Your task to perform on an android device: Add "lenovo thinkpad" to the cart on target, then select checkout. Image 0: 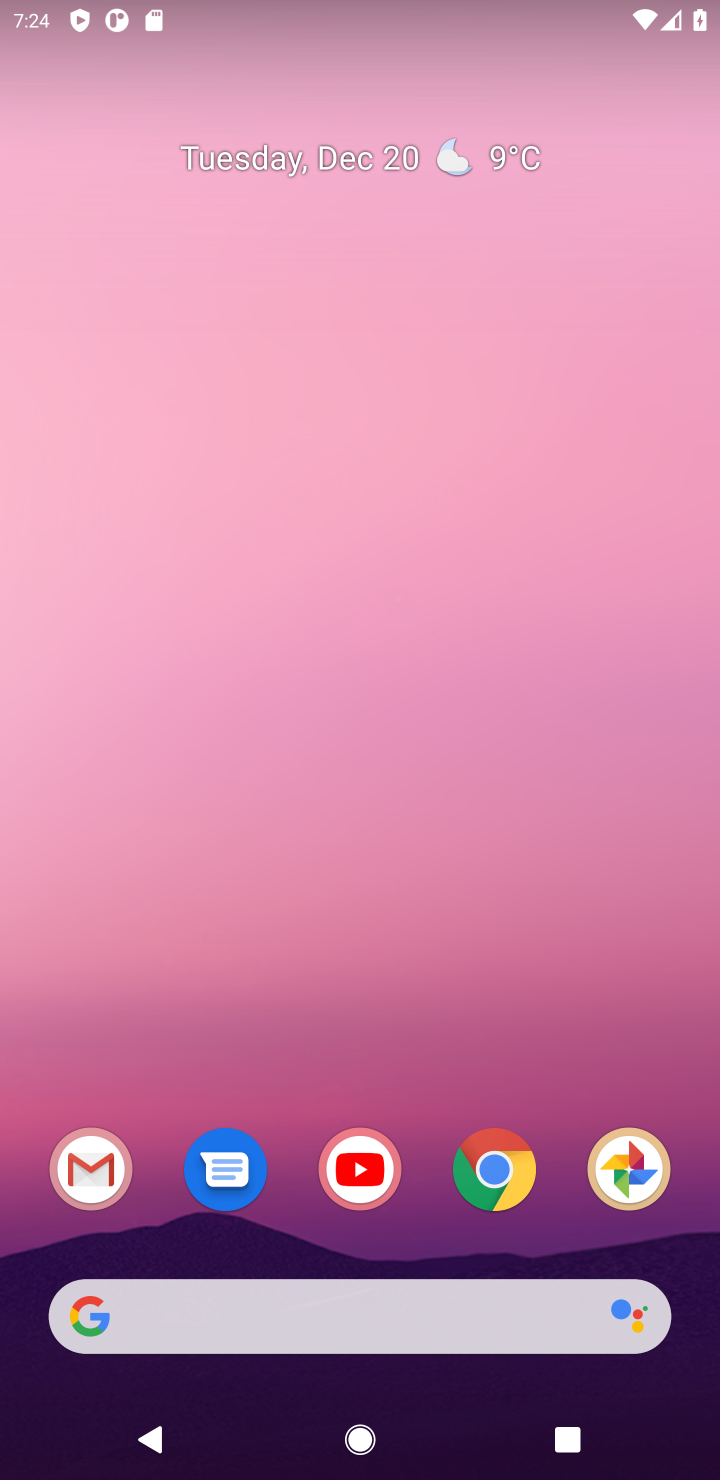
Step 0: click (514, 1173)
Your task to perform on an android device: Add "lenovo thinkpad" to the cart on target, then select checkout. Image 1: 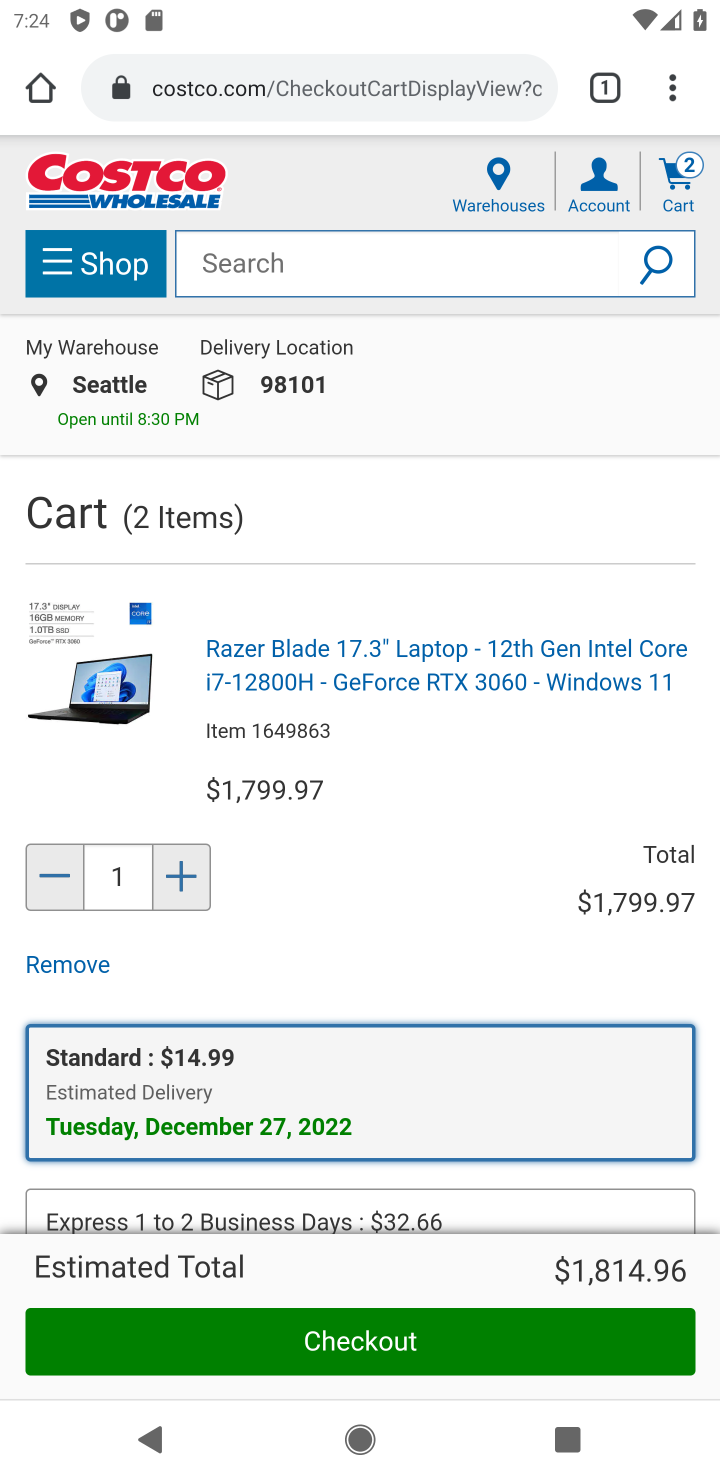
Step 1: click (315, 98)
Your task to perform on an android device: Add "lenovo thinkpad" to the cart on target, then select checkout. Image 2: 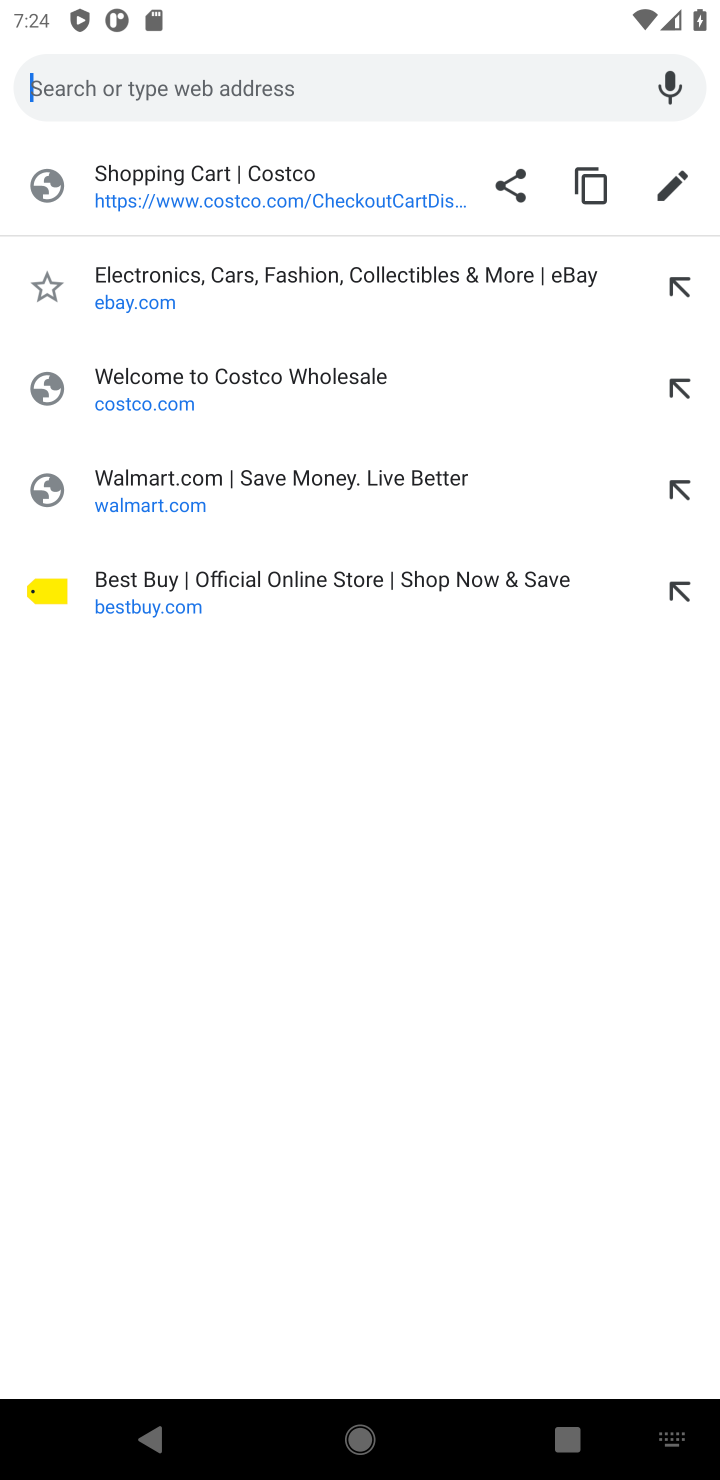
Step 2: type "target"
Your task to perform on an android device: Add "lenovo thinkpad" to the cart on target, then select checkout. Image 3: 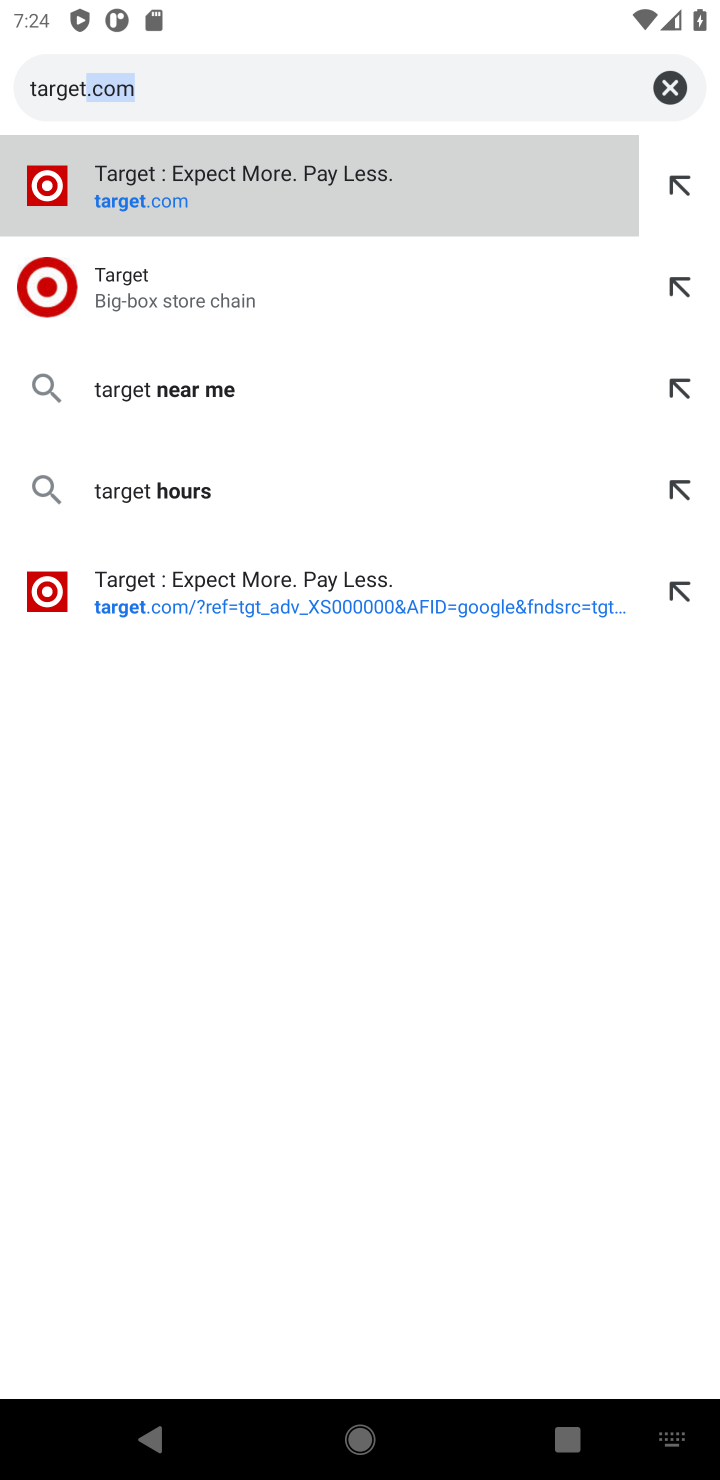
Step 3: click (237, 174)
Your task to perform on an android device: Add "lenovo thinkpad" to the cart on target, then select checkout. Image 4: 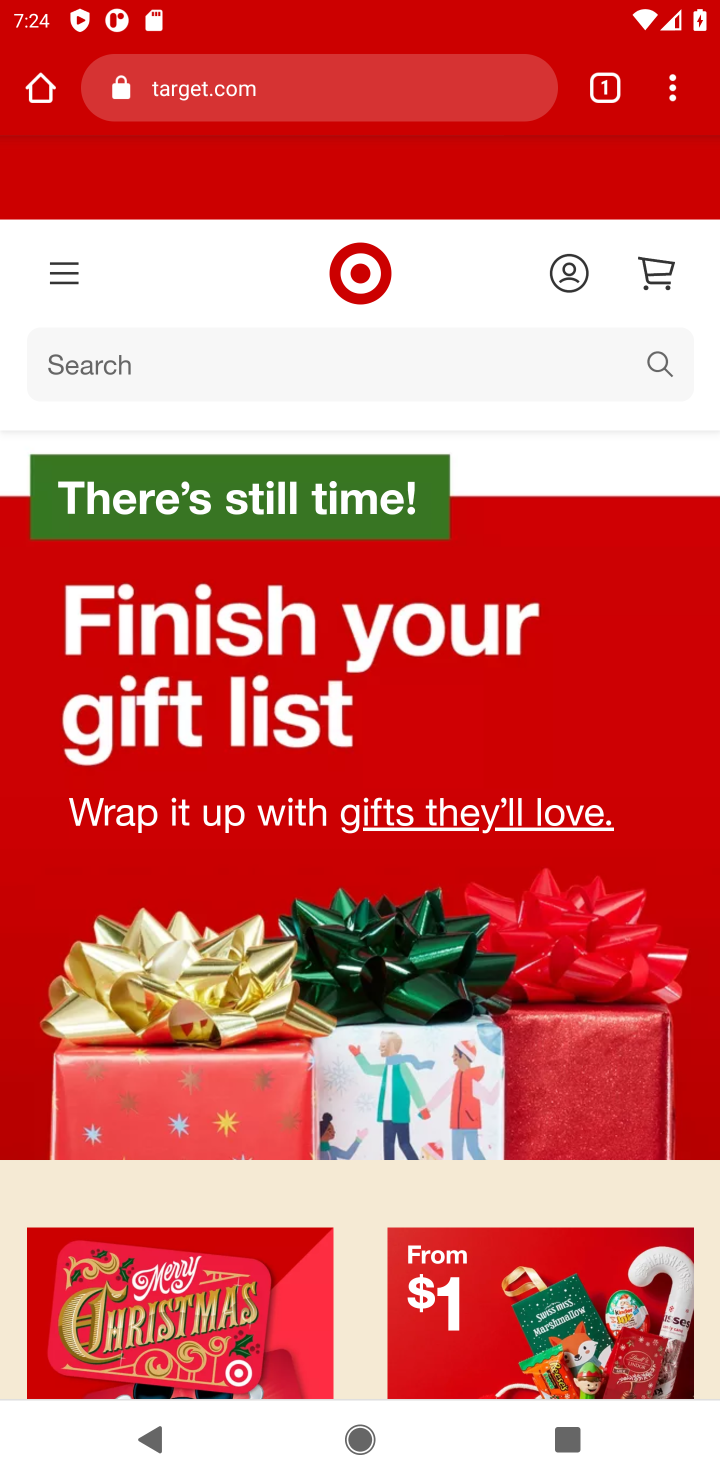
Step 4: click (305, 342)
Your task to perform on an android device: Add "lenovo thinkpad" to the cart on target, then select checkout. Image 5: 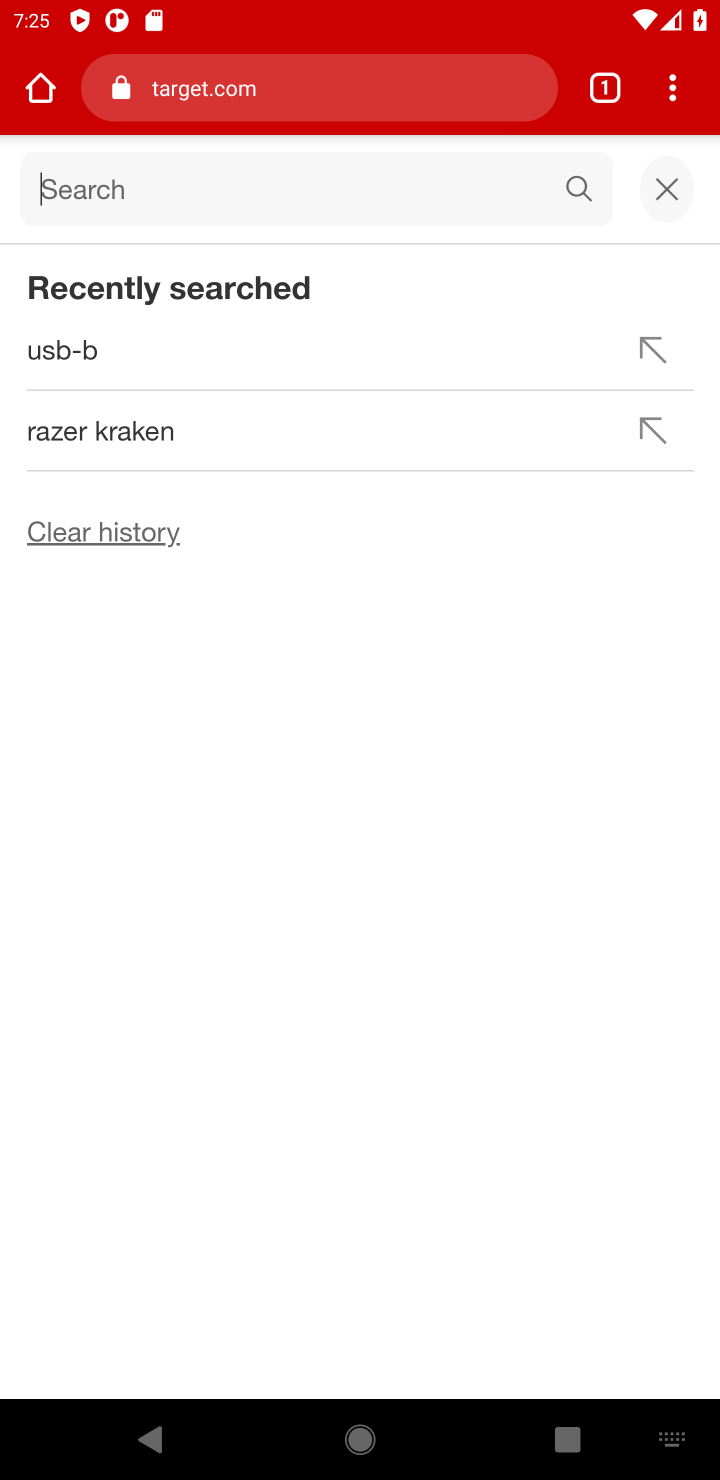
Step 5: type "lenovo thinkpad"
Your task to perform on an android device: Add "lenovo thinkpad" to the cart on target, then select checkout. Image 6: 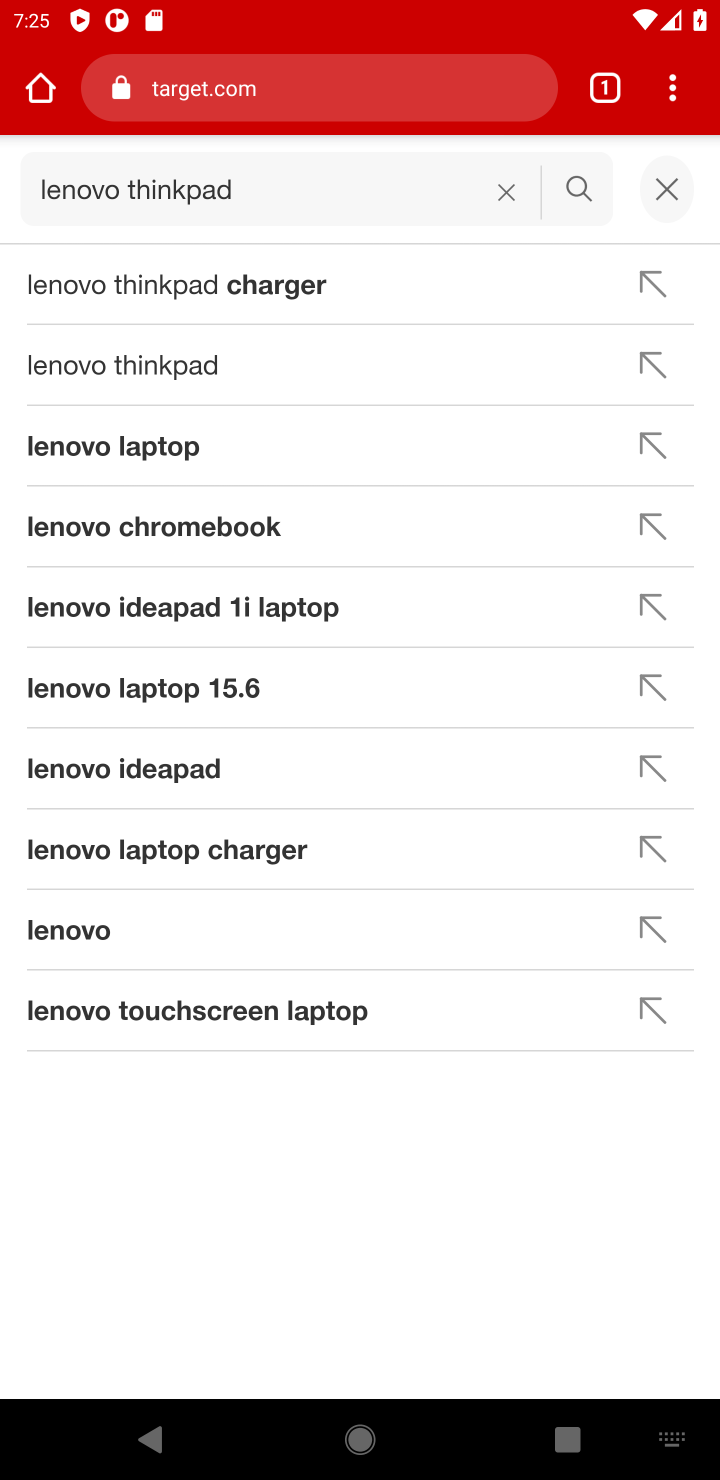
Step 6: click (183, 379)
Your task to perform on an android device: Add "lenovo thinkpad" to the cart on target, then select checkout. Image 7: 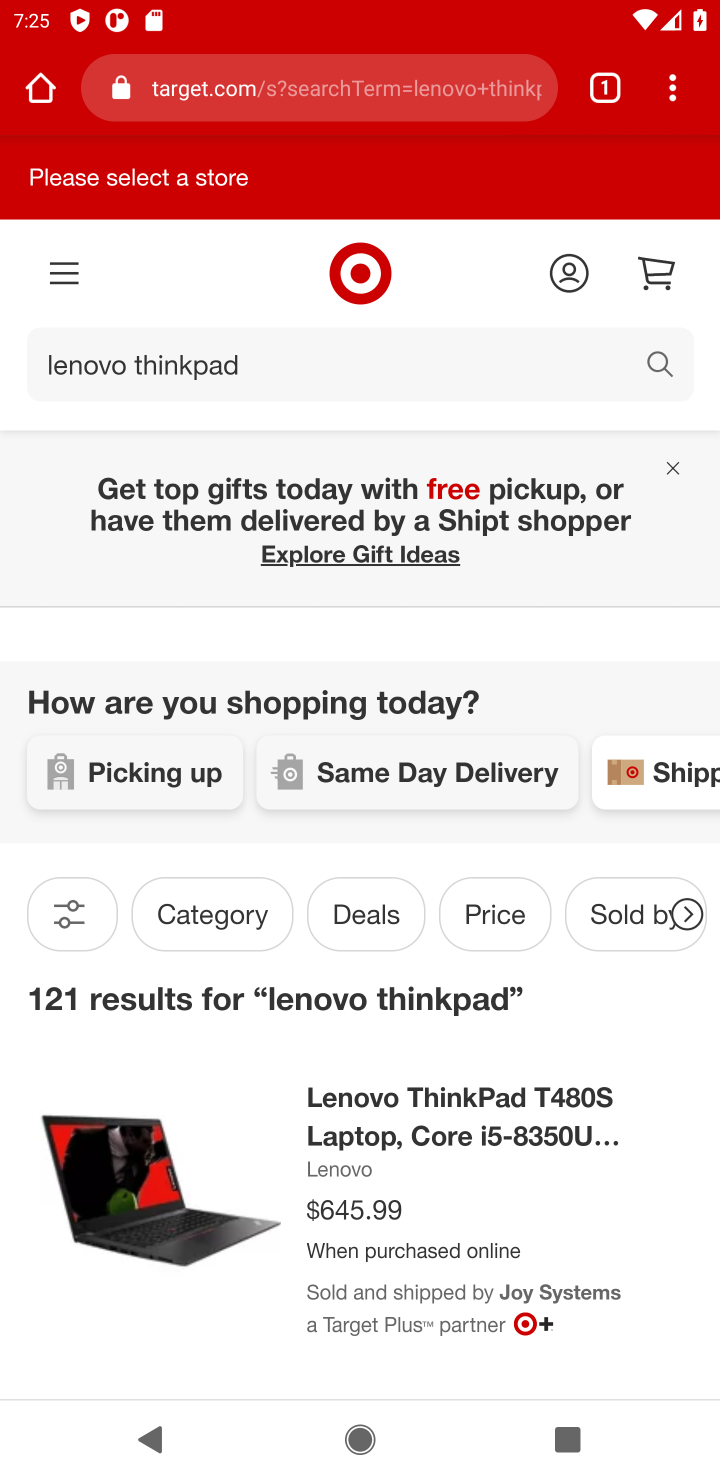
Step 7: click (495, 1190)
Your task to perform on an android device: Add "lenovo thinkpad" to the cart on target, then select checkout. Image 8: 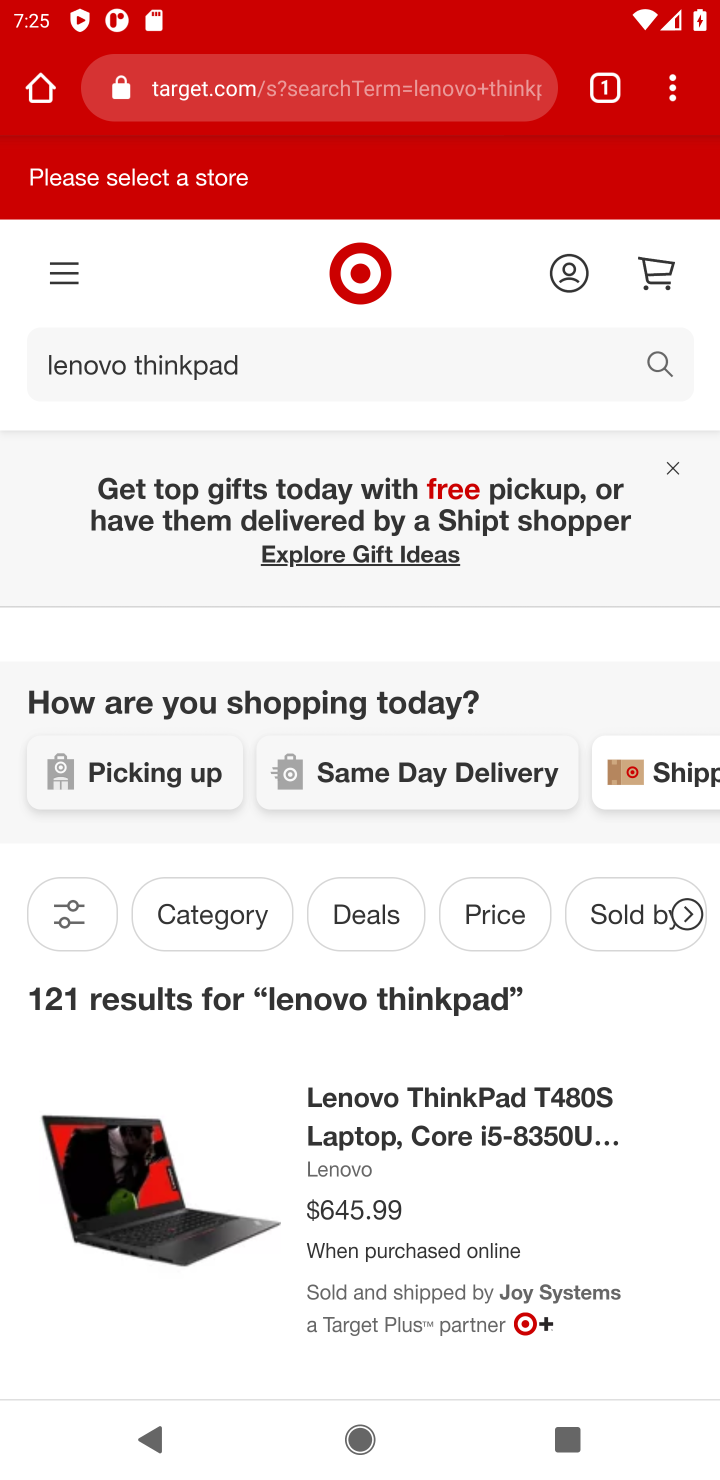
Step 8: click (430, 1090)
Your task to perform on an android device: Add "lenovo thinkpad" to the cart on target, then select checkout. Image 9: 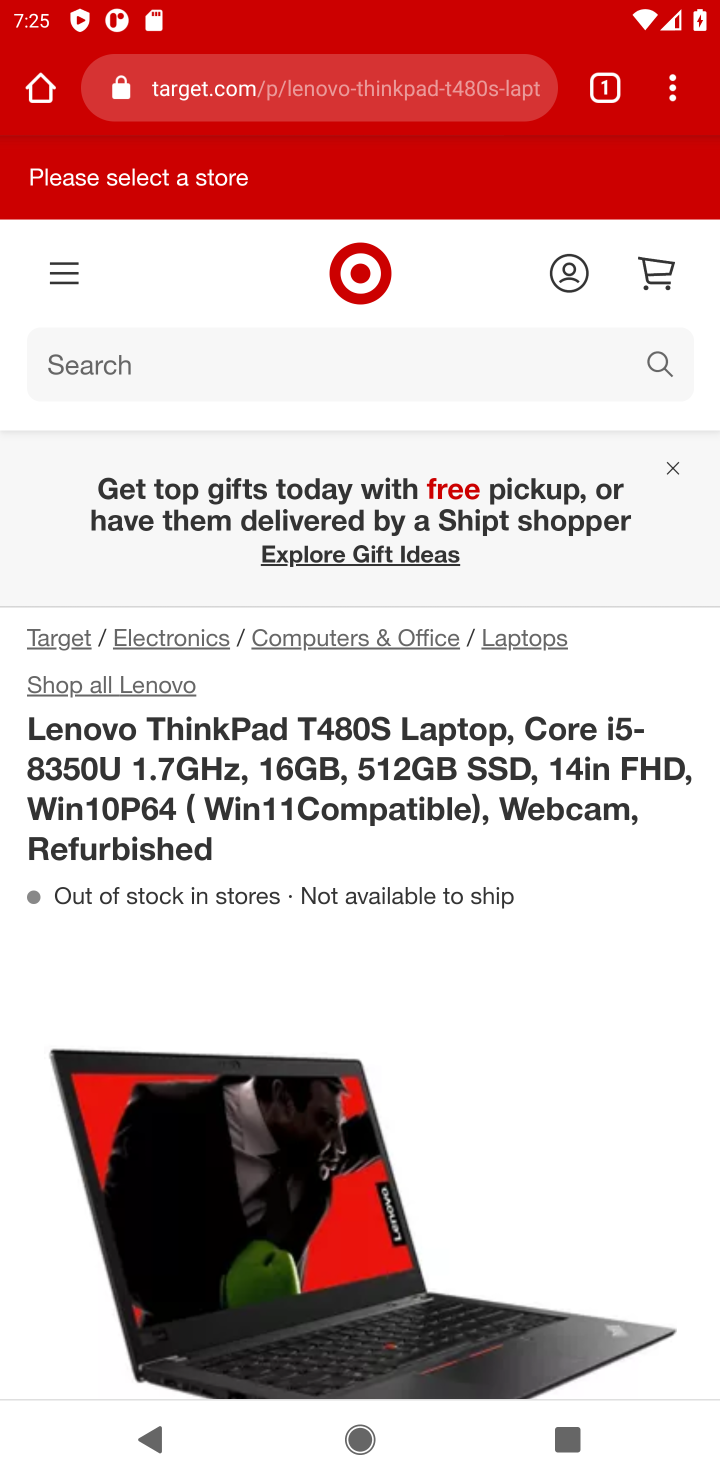
Step 9: drag from (375, 1156) to (403, 84)
Your task to perform on an android device: Add "lenovo thinkpad" to the cart on target, then select checkout. Image 10: 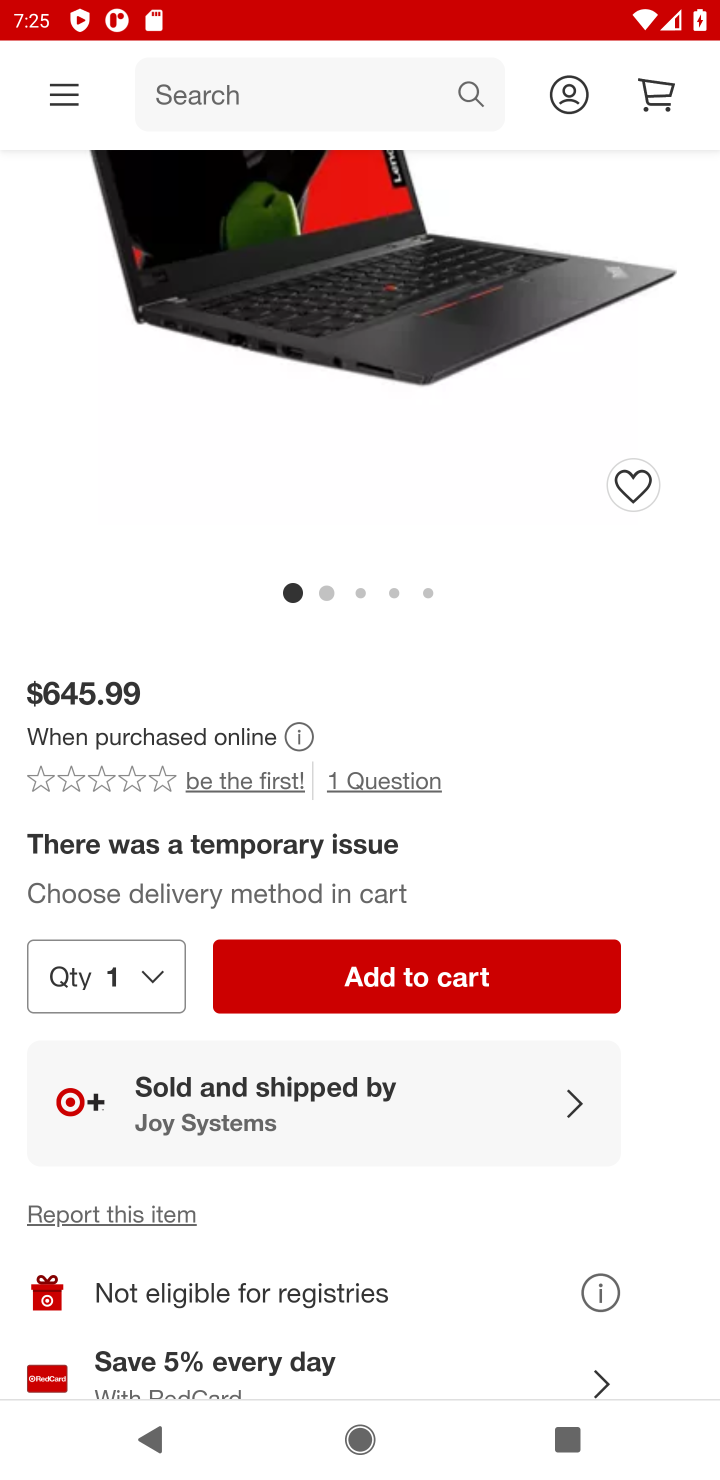
Step 10: click (417, 953)
Your task to perform on an android device: Add "lenovo thinkpad" to the cart on target, then select checkout. Image 11: 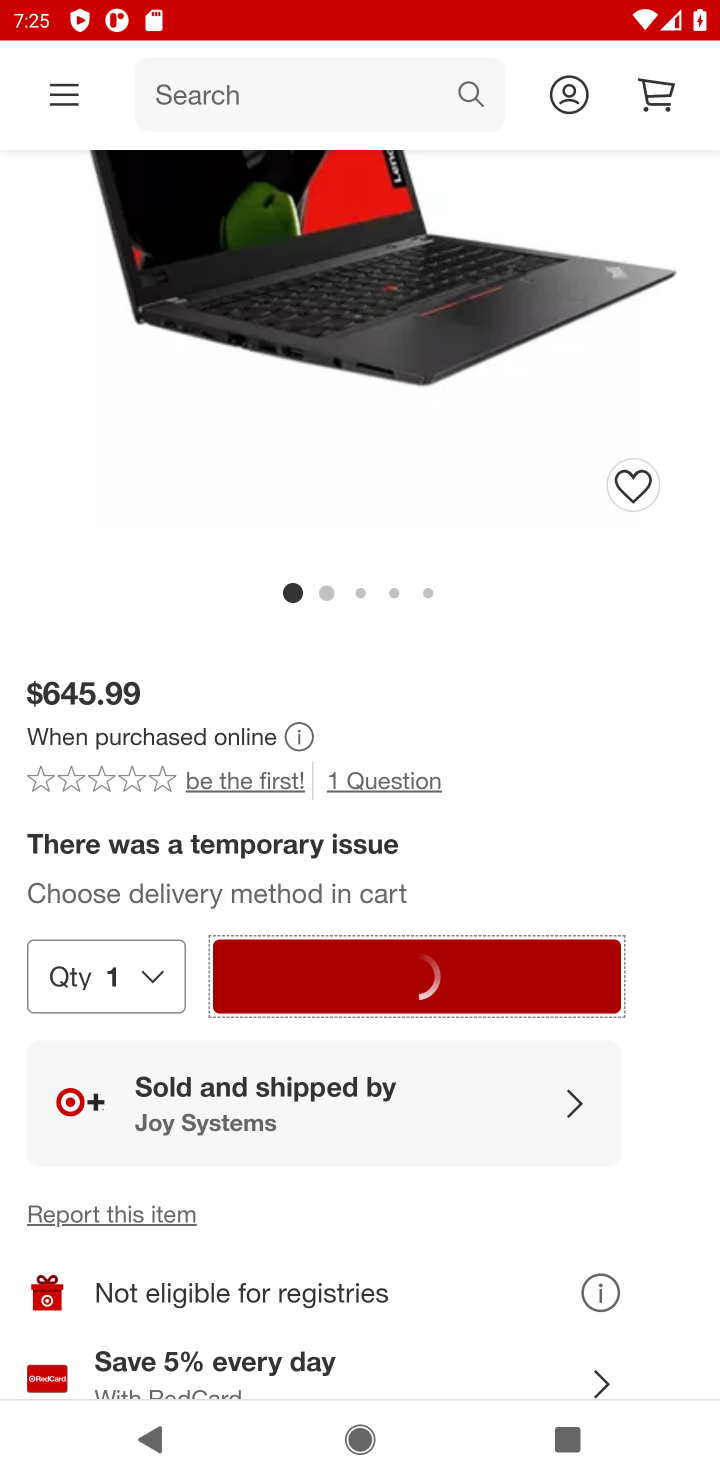
Step 11: task complete